Your task to perform on an android device: toggle airplane mode Image 0: 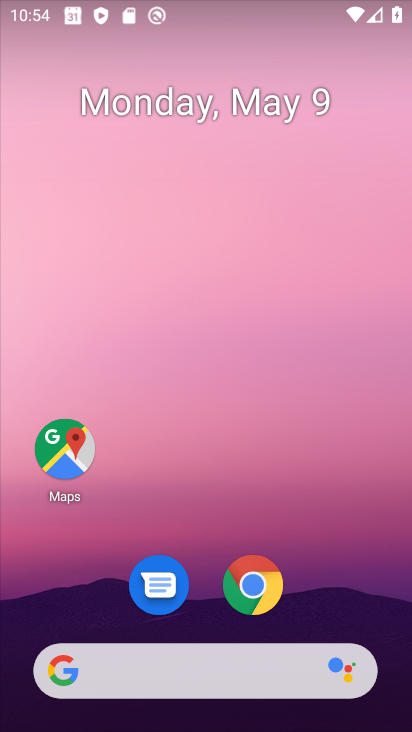
Step 0: drag from (211, 454) to (282, 28)
Your task to perform on an android device: toggle airplane mode Image 1: 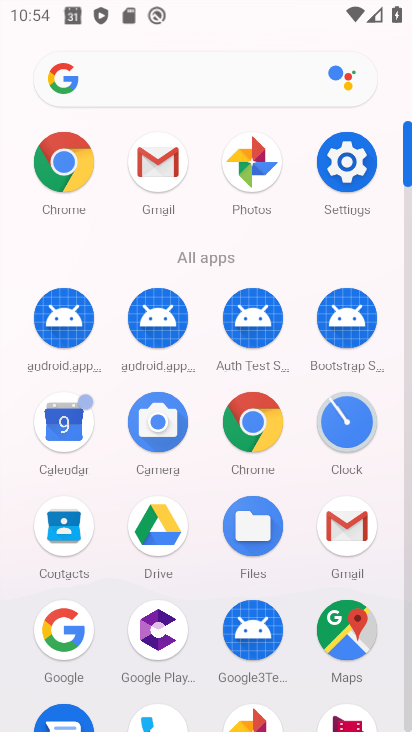
Step 1: click (330, 154)
Your task to perform on an android device: toggle airplane mode Image 2: 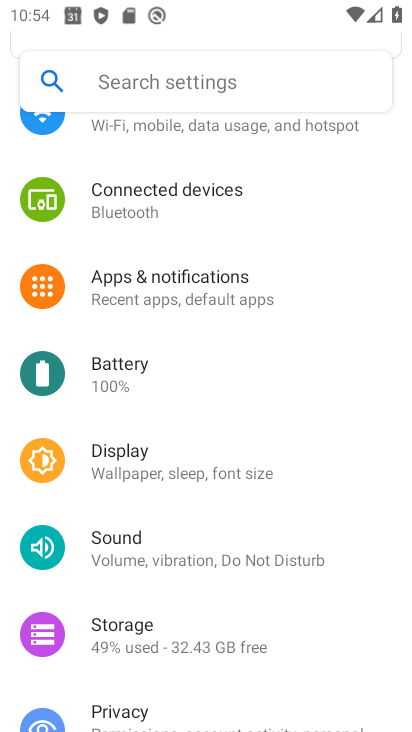
Step 2: drag from (237, 407) to (264, 612)
Your task to perform on an android device: toggle airplane mode Image 3: 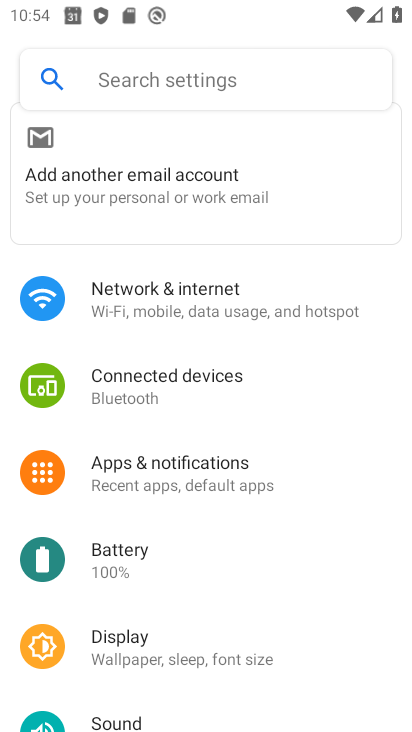
Step 3: click (230, 299)
Your task to perform on an android device: toggle airplane mode Image 4: 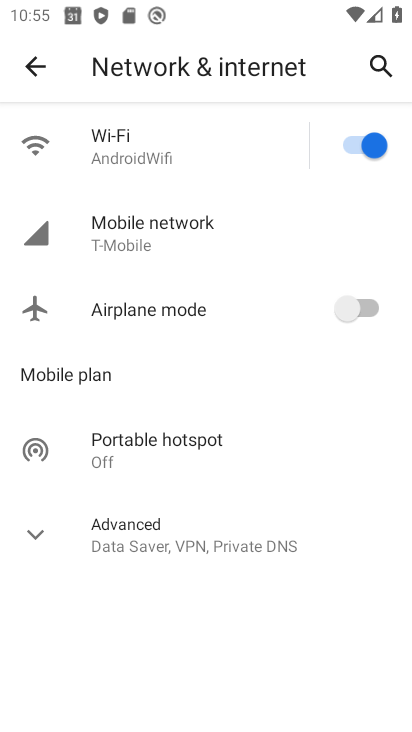
Step 4: click (364, 294)
Your task to perform on an android device: toggle airplane mode Image 5: 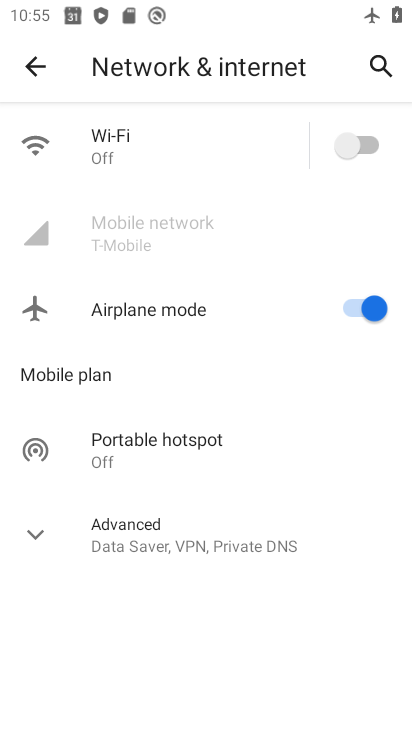
Step 5: task complete